Your task to perform on an android device: toggle translation in the chrome app Image 0: 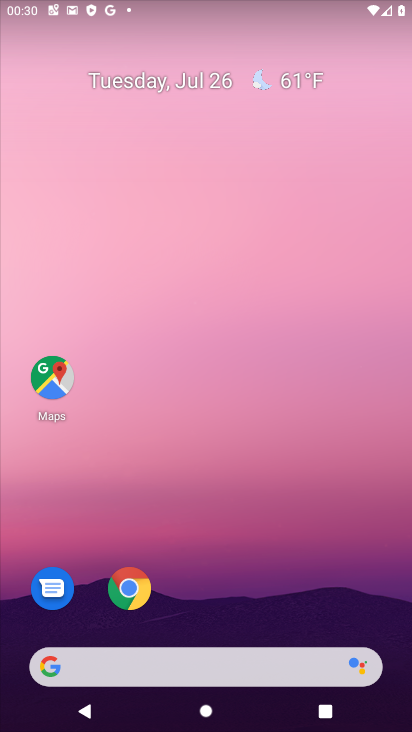
Step 0: drag from (221, 632) to (246, 0)
Your task to perform on an android device: toggle translation in the chrome app Image 1: 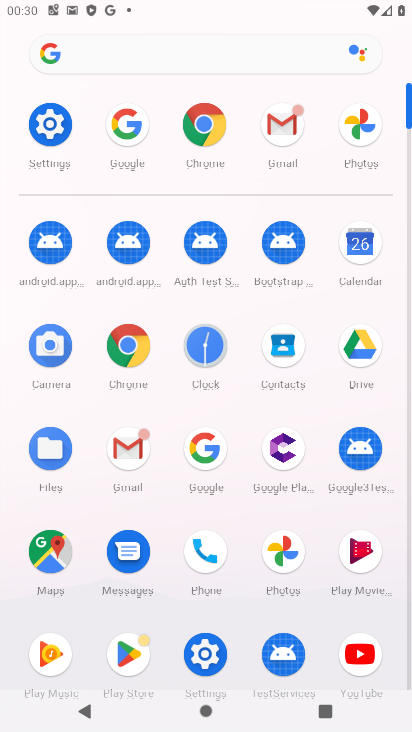
Step 1: click (126, 336)
Your task to perform on an android device: toggle translation in the chrome app Image 2: 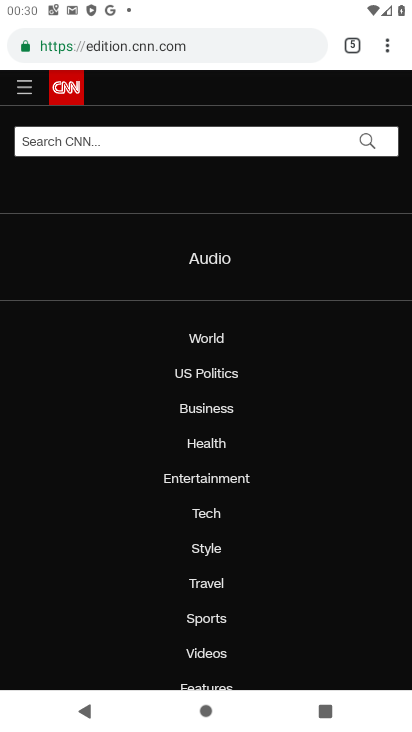
Step 2: click (388, 44)
Your task to perform on an android device: toggle translation in the chrome app Image 3: 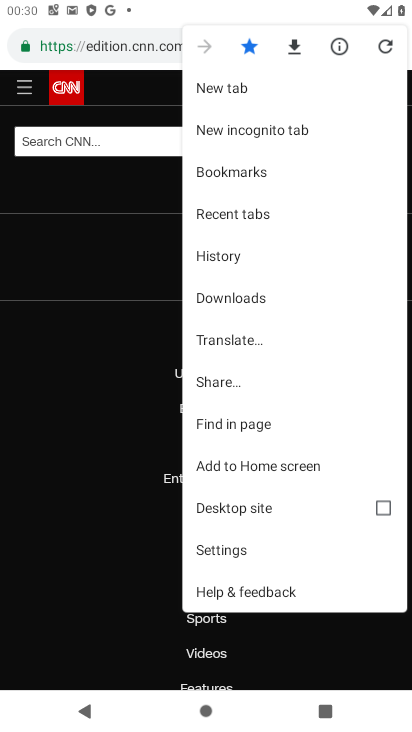
Step 3: click (256, 547)
Your task to perform on an android device: toggle translation in the chrome app Image 4: 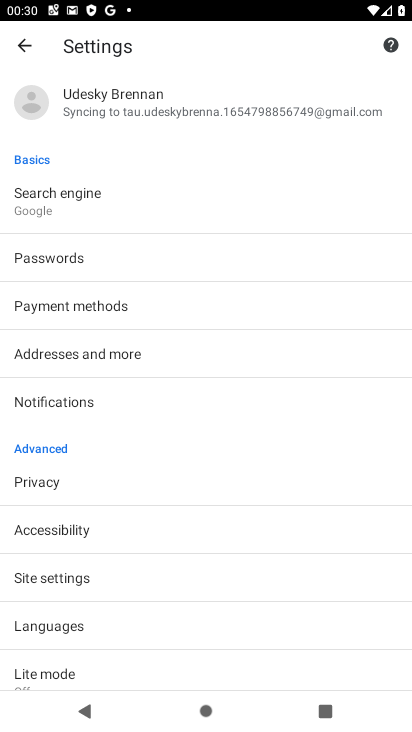
Step 4: click (101, 620)
Your task to perform on an android device: toggle translation in the chrome app Image 5: 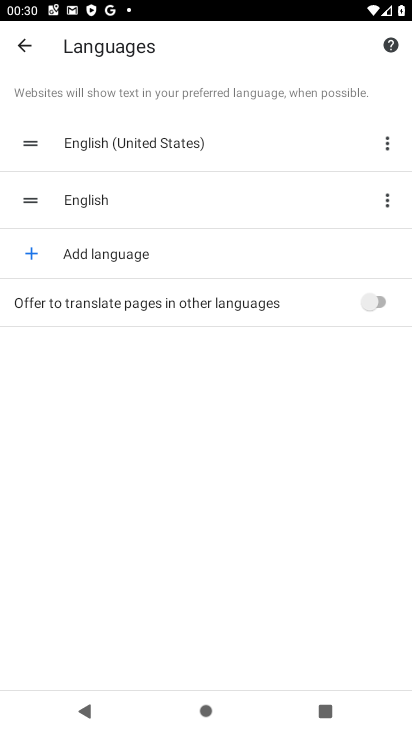
Step 5: click (378, 300)
Your task to perform on an android device: toggle translation in the chrome app Image 6: 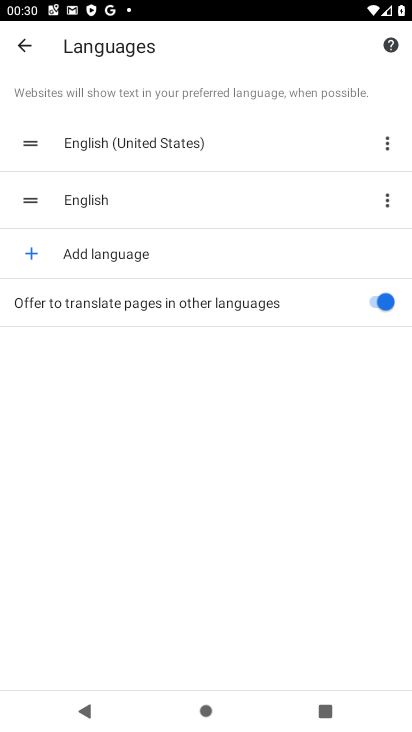
Step 6: task complete